Your task to perform on an android device: clear all cookies in the chrome app Image 0: 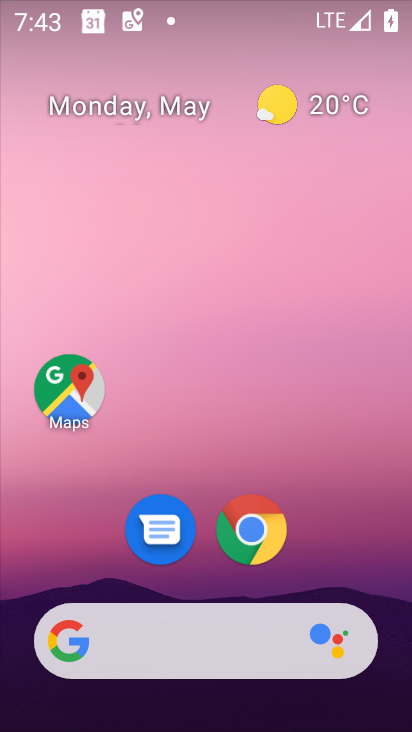
Step 0: click (258, 528)
Your task to perform on an android device: clear all cookies in the chrome app Image 1: 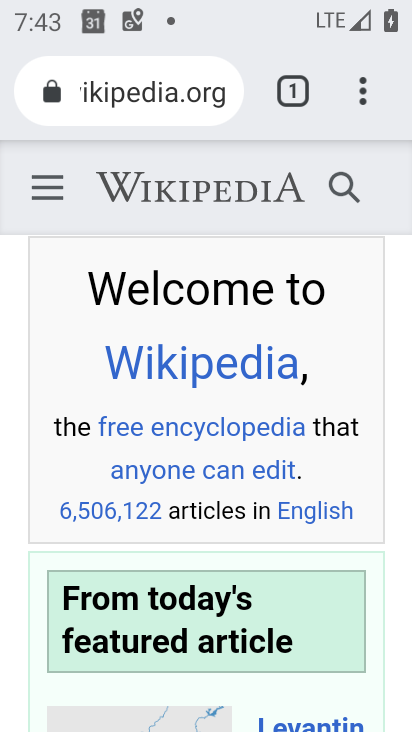
Step 1: click (363, 88)
Your task to perform on an android device: clear all cookies in the chrome app Image 2: 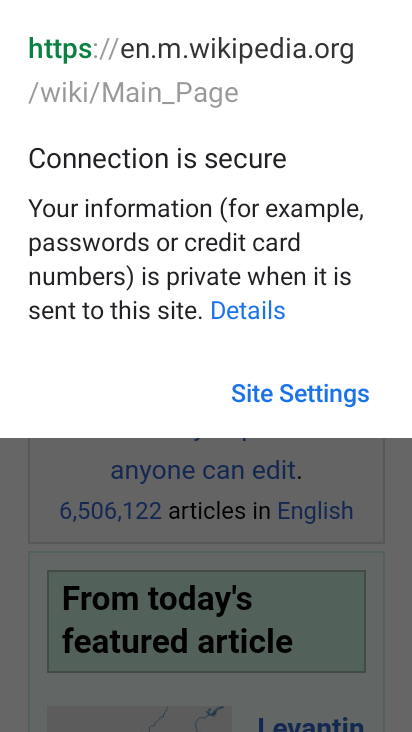
Step 2: press back button
Your task to perform on an android device: clear all cookies in the chrome app Image 3: 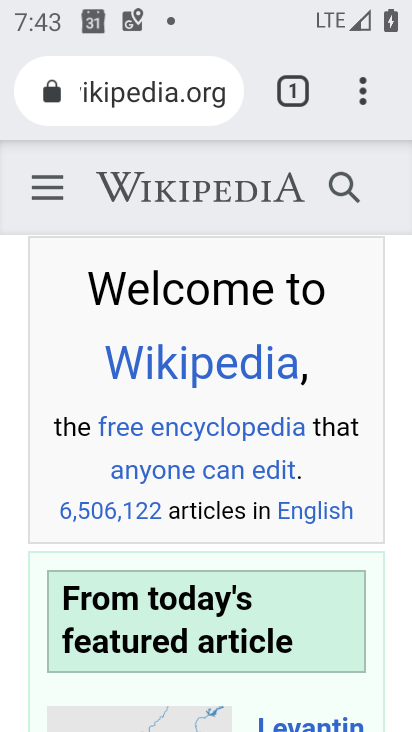
Step 3: click (371, 94)
Your task to perform on an android device: clear all cookies in the chrome app Image 4: 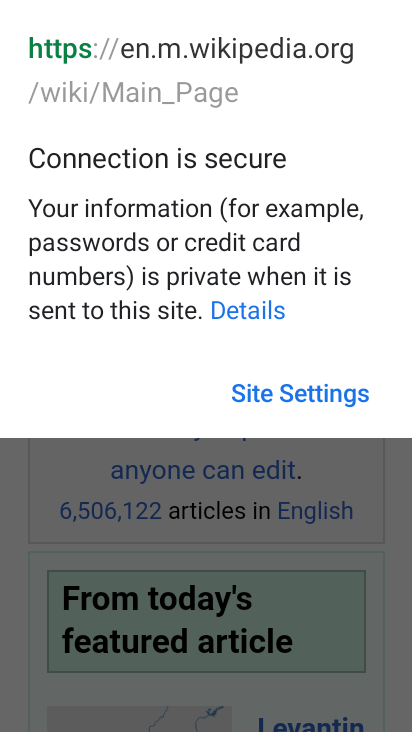
Step 4: press back button
Your task to perform on an android device: clear all cookies in the chrome app Image 5: 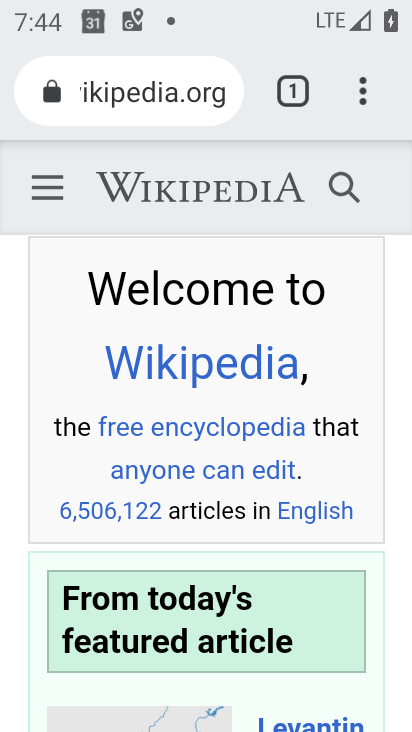
Step 5: click (367, 89)
Your task to perform on an android device: clear all cookies in the chrome app Image 6: 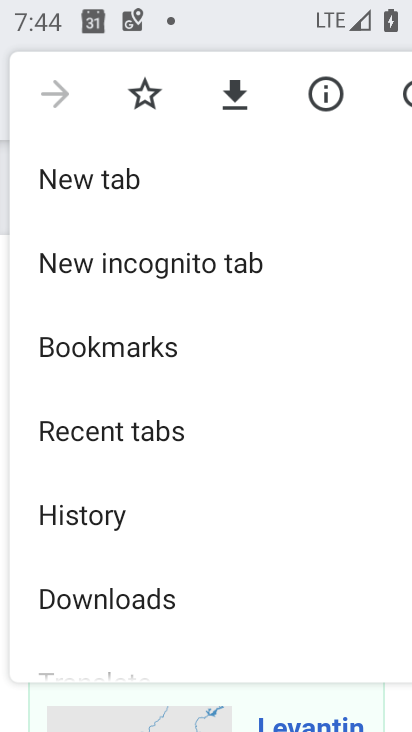
Step 6: drag from (16, 565) to (254, 156)
Your task to perform on an android device: clear all cookies in the chrome app Image 7: 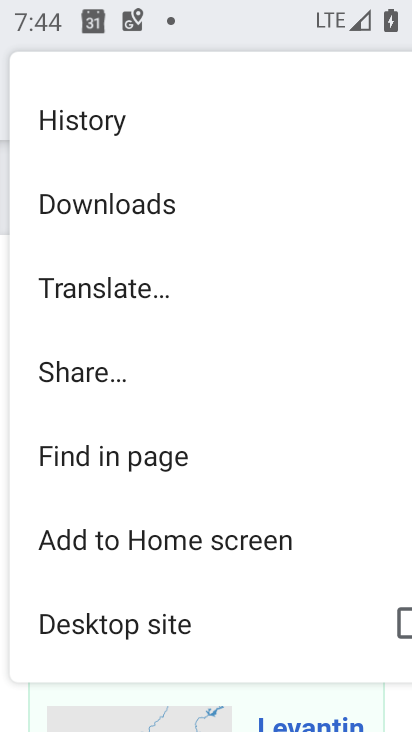
Step 7: drag from (25, 552) to (209, 234)
Your task to perform on an android device: clear all cookies in the chrome app Image 8: 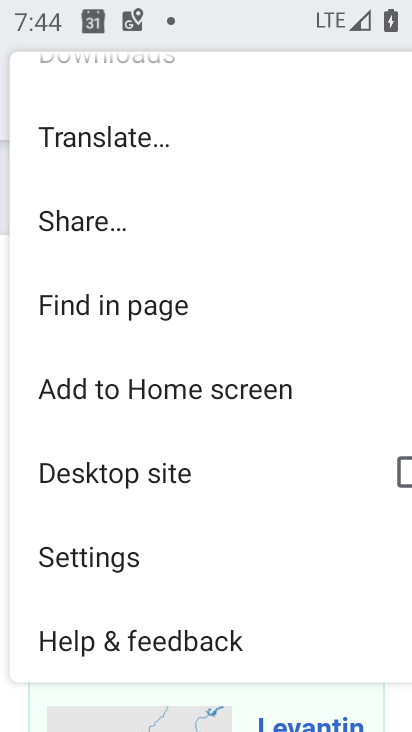
Step 8: click (102, 554)
Your task to perform on an android device: clear all cookies in the chrome app Image 9: 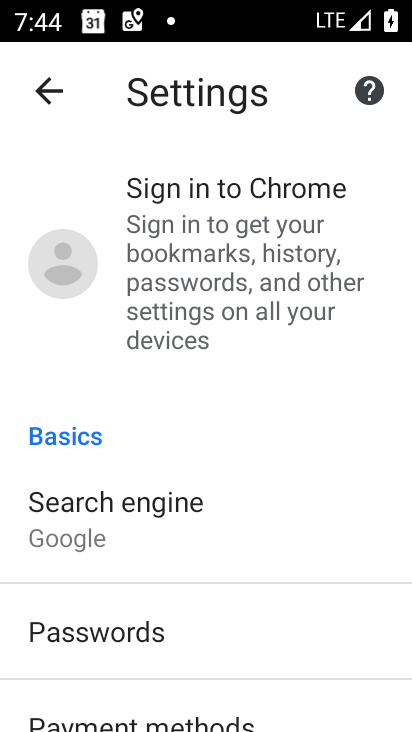
Step 9: drag from (3, 702) to (267, 144)
Your task to perform on an android device: clear all cookies in the chrome app Image 10: 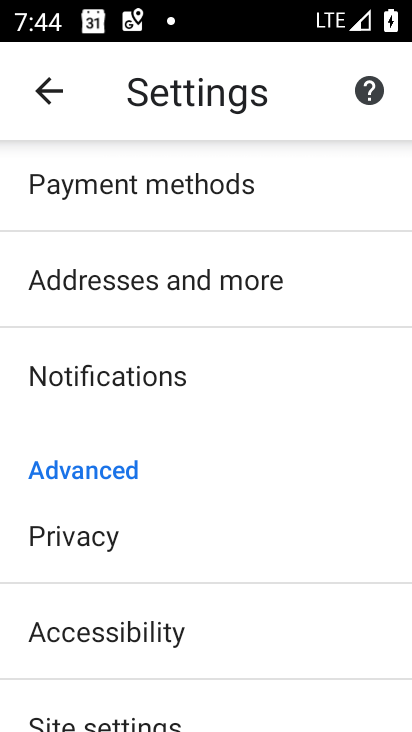
Step 10: drag from (2, 483) to (162, 227)
Your task to perform on an android device: clear all cookies in the chrome app Image 11: 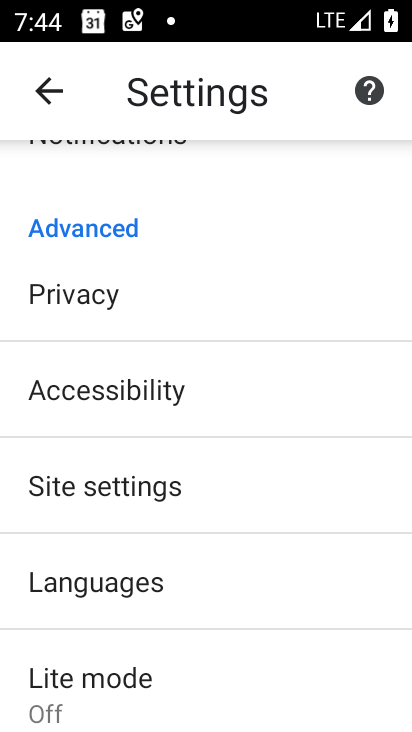
Step 11: click (135, 483)
Your task to perform on an android device: clear all cookies in the chrome app Image 12: 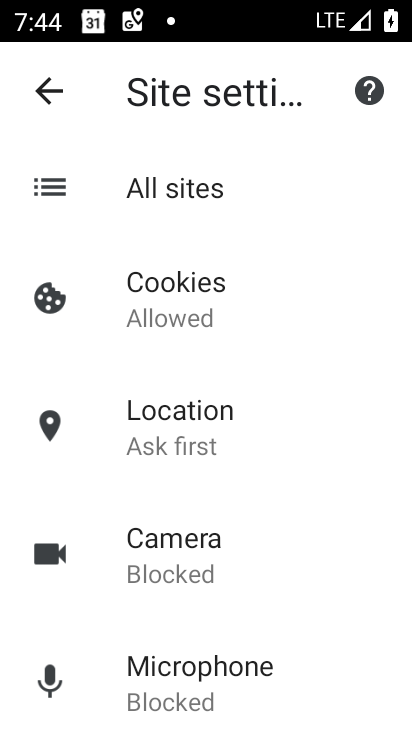
Step 12: click (205, 330)
Your task to perform on an android device: clear all cookies in the chrome app Image 13: 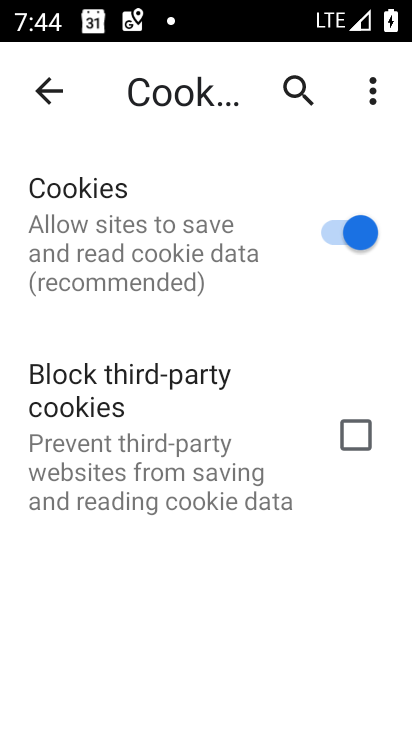
Step 13: task complete